Your task to perform on an android device: set an alarm Image 0: 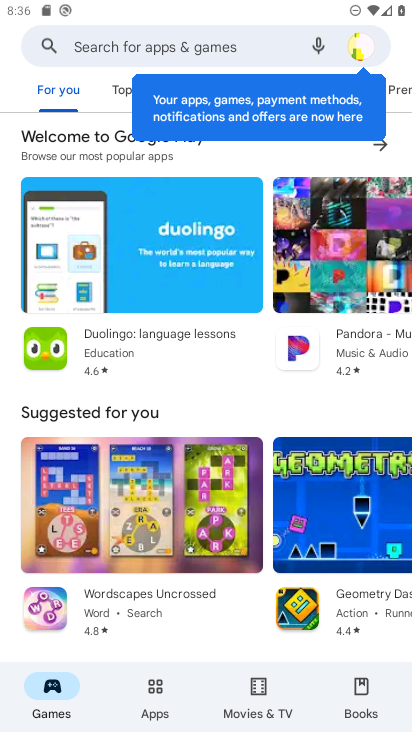
Step 0: press home button
Your task to perform on an android device: set an alarm Image 1: 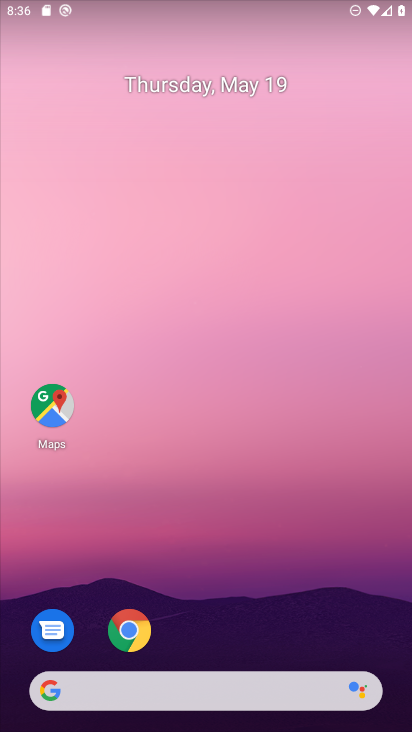
Step 1: drag from (181, 630) to (198, 0)
Your task to perform on an android device: set an alarm Image 2: 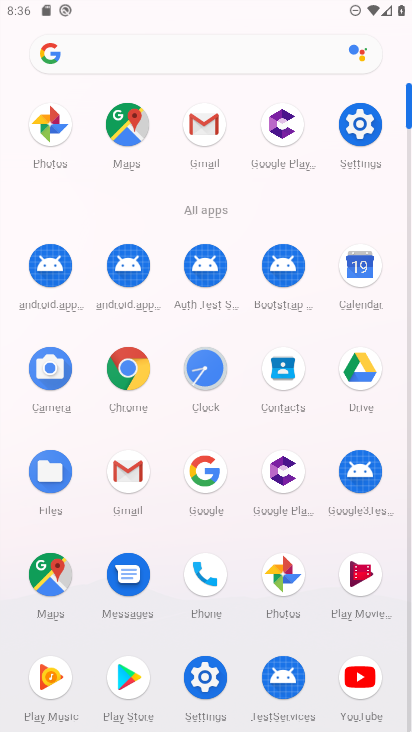
Step 2: click (209, 375)
Your task to perform on an android device: set an alarm Image 3: 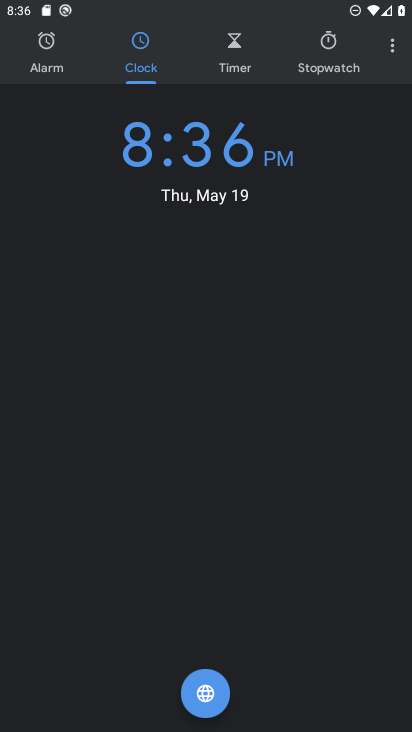
Step 3: click (40, 49)
Your task to perform on an android device: set an alarm Image 4: 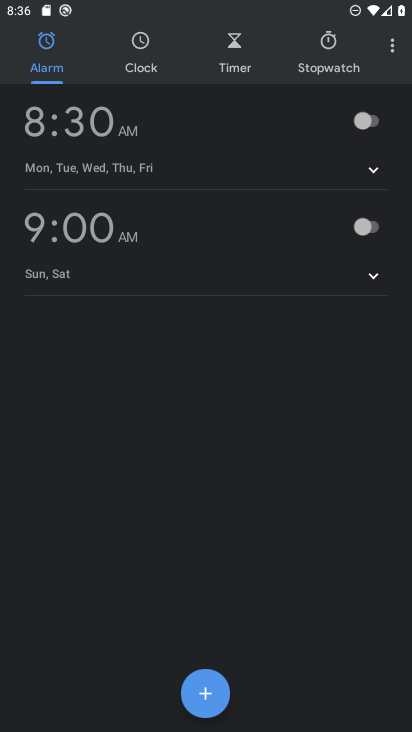
Step 4: click (378, 121)
Your task to perform on an android device: set an alarm Image 5: 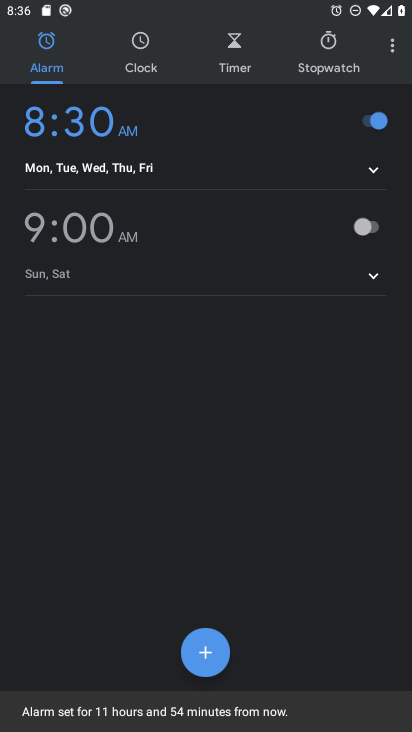
Step 5: task complete